Your task to perform on an android device: turn pop-ups on in chrome Image 0: 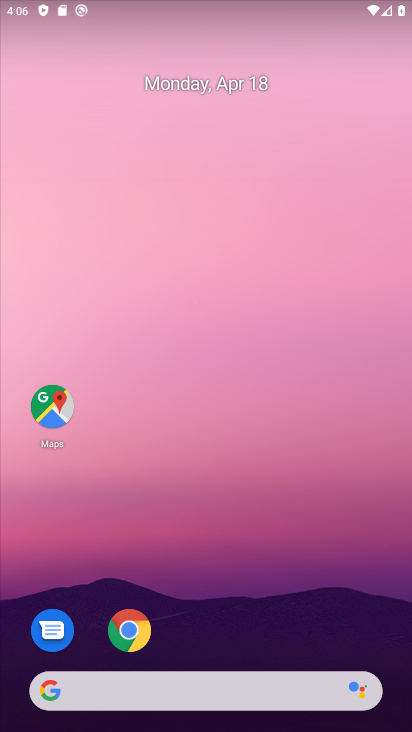
Step 0: click (125, 636)
Your task to perform on an android device: turn pop-ups on in chrome Image 1: 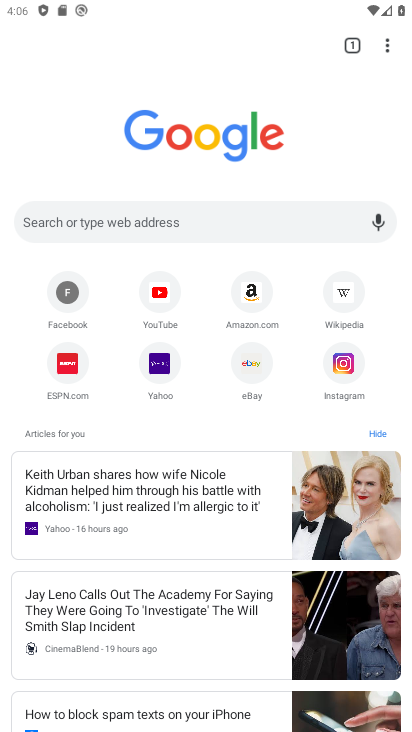
Step 1: click (391, 48)
Your task to perform on an android device: turn pop-ups on in chrome Image 2: 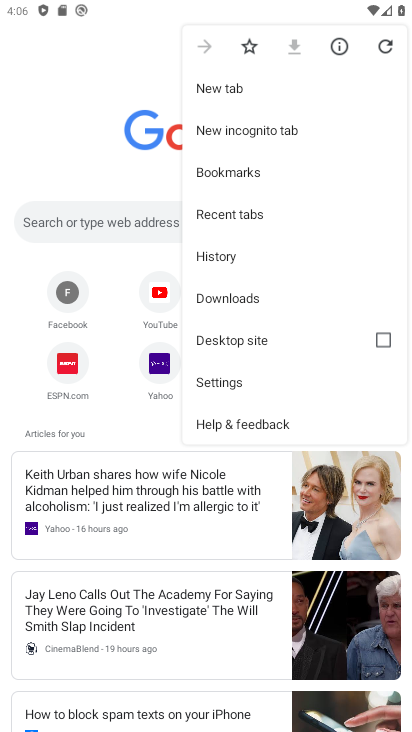
Step 2: click (215, 385)
Your task to perform on an android device: turn pop-ups on in chrome Image 3: 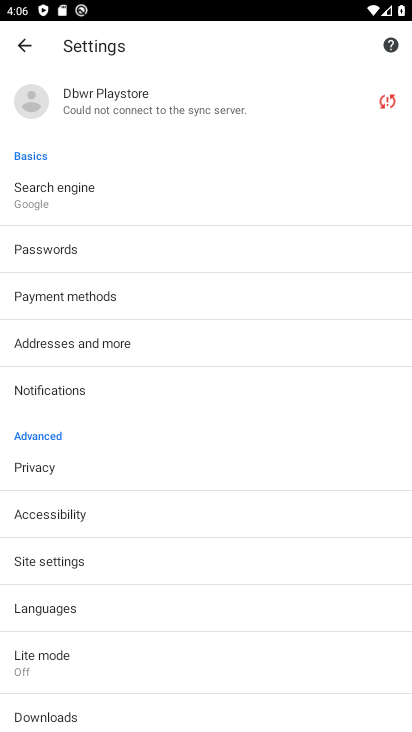
Step 3: click (61, 564)
Your task to perform on an android device: turn pop-ups on in chrome Image 4: 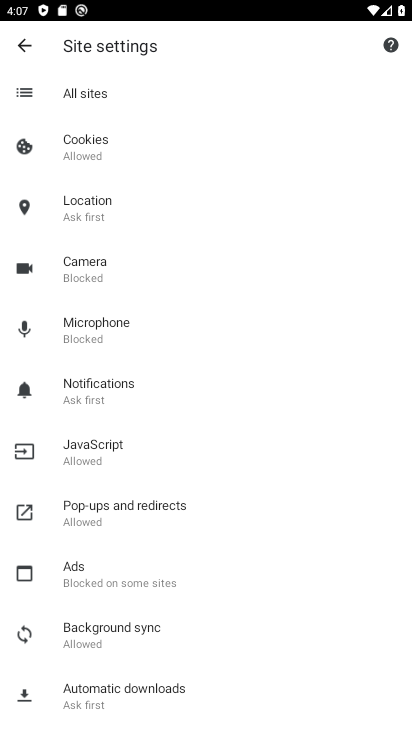
Step 4: click (111, 507)
Your task to perform on an android device: turn pop-ups on in chrome Image 5: 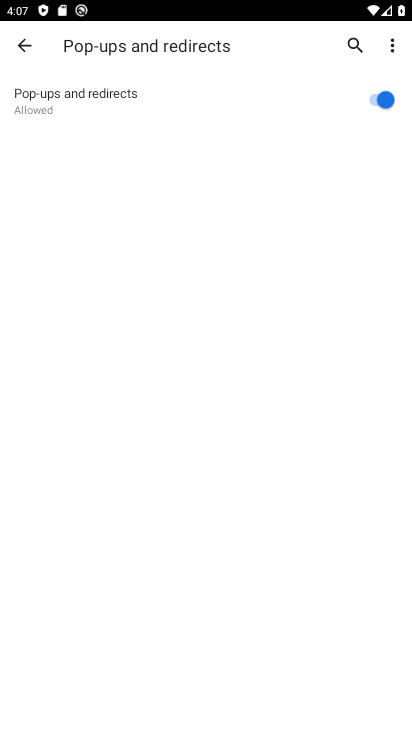
Step 5: task complete